Your task to perform on an android device: remove spam from my inbox in the gmail app Image 0: 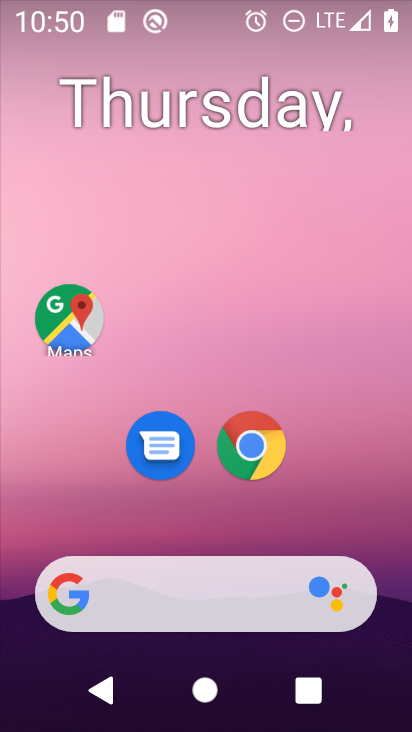
Step 0: drag from (393, 611) to (346, 11)
Your task to perform on an android device: remove spam from my inbox in the gmail app Image 1: 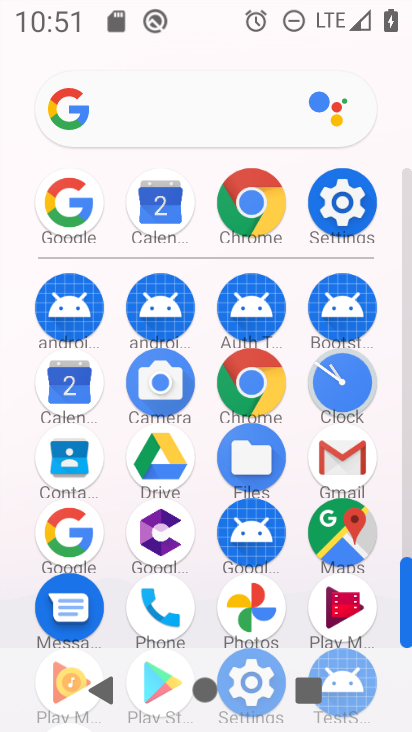
Step 1: click (346, 455)
Your task to perform on an android device: remove spam from my inbox in the gmail app Image 2: 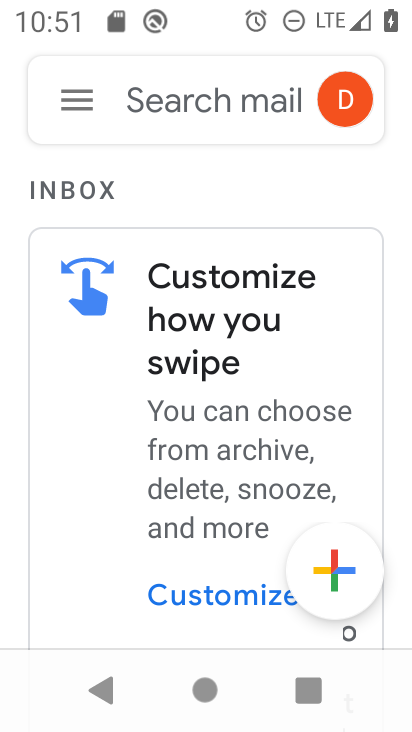
Step 2: task complete